Your task to perform on an android device: Open battery settings Image 0: 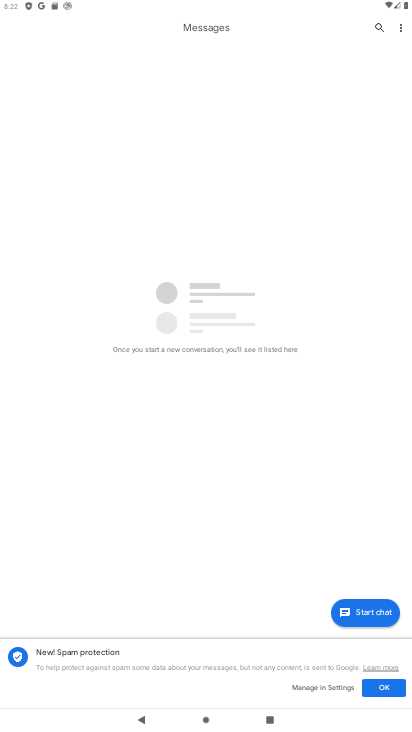
Step 0: press home button
Your task to perform on an android device: Open battery settings Image 1: 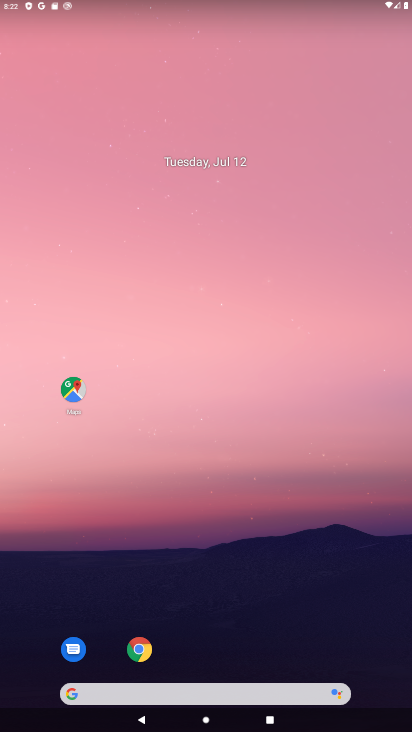
Step 1: drag from (267, 644) to (298, 177)
Your task to perform on an android device: Open battery settings Image 2: 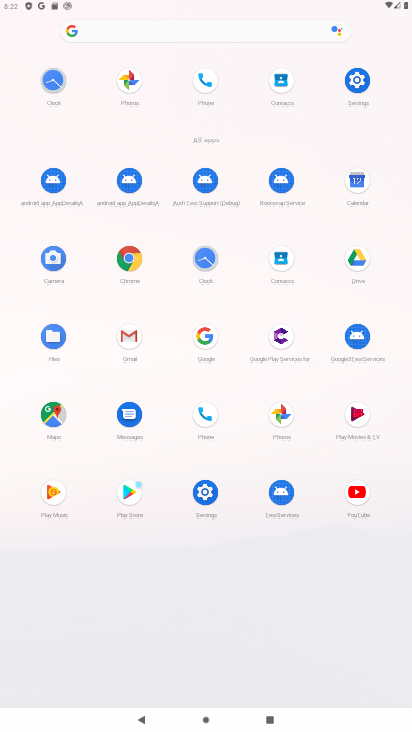
Step 2: click (355, 74)
Your task to perform on an android device: Open battery settings Image 3: 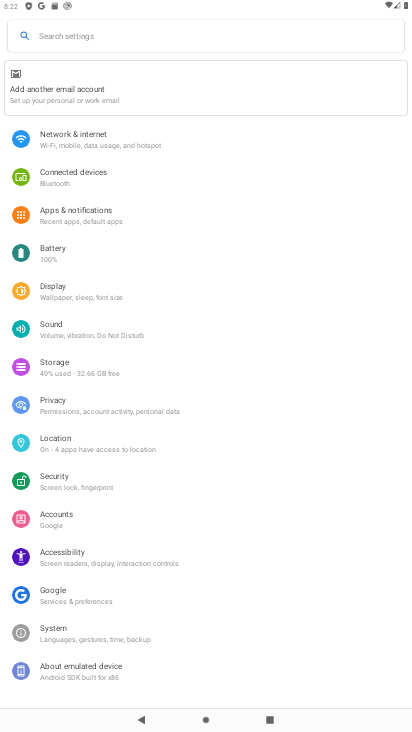
Step 3: click (56, 258)
Your task to perform on an android device: Open battery settings Image 4: 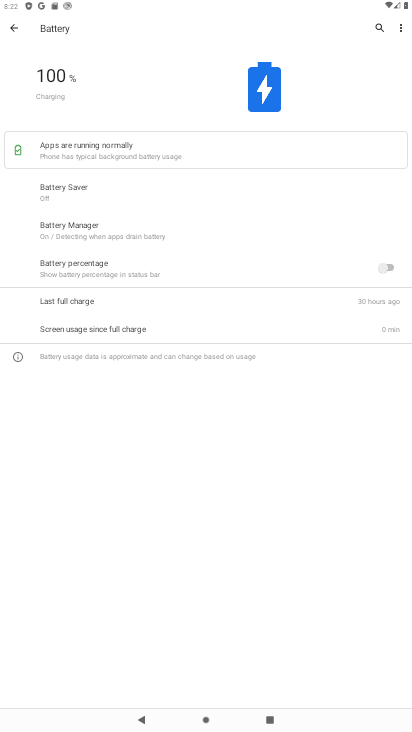
Step 4: task complete